Your task to perform on an android device: Go to wifi settings Image 0: 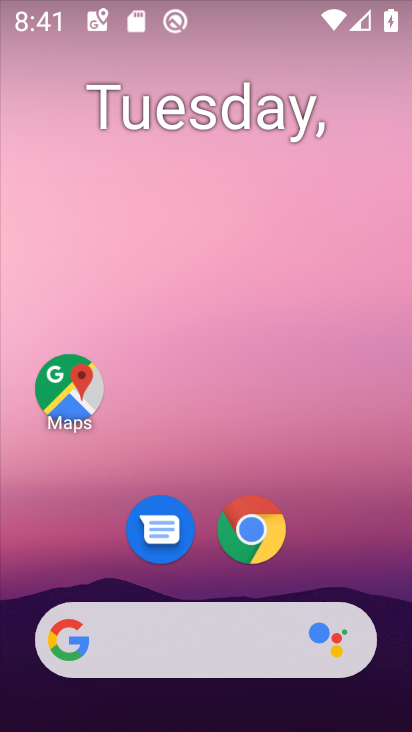
Step 0: drag from (149, 28) to (148, 511)
Your task to perform on an android device: Go to wifi settings Image 1: 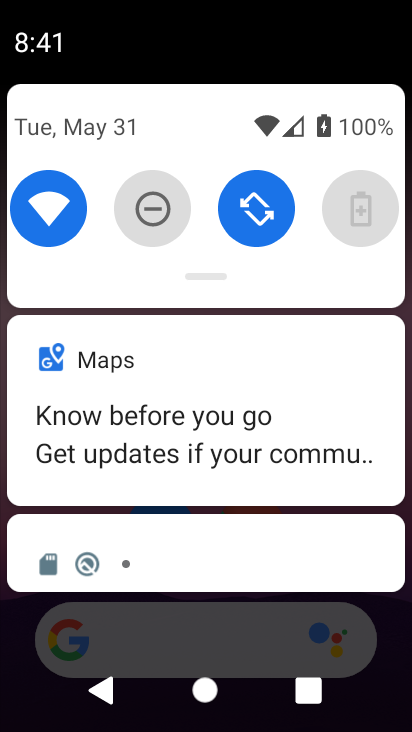
Step 1: click (58, 218)
Your task to perform on an android device: Go to wifi settings Image 2: 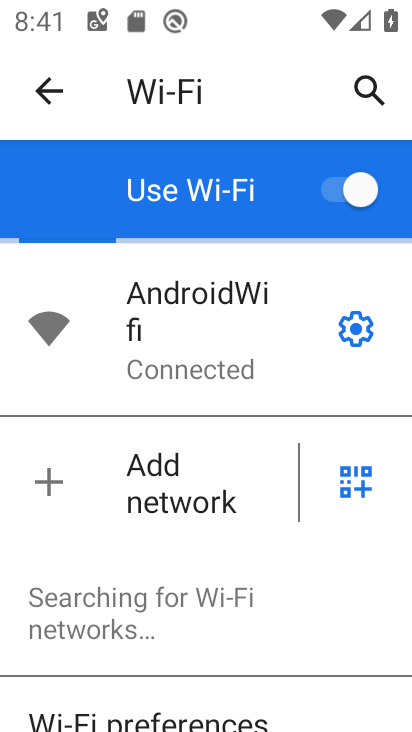
Step 2: task complete